Your task to perform on an android device: open chrome and create a bookmark for the current page Image 0: 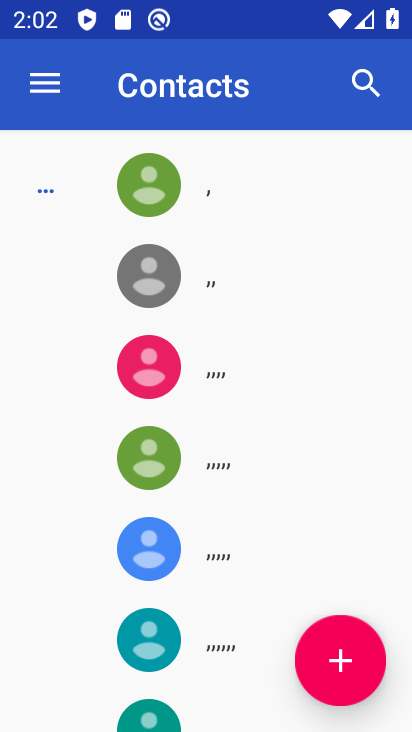
Step 0: press home button
Your task to perform on an android device: open chrome and create a bookmark for the current page Image 1: 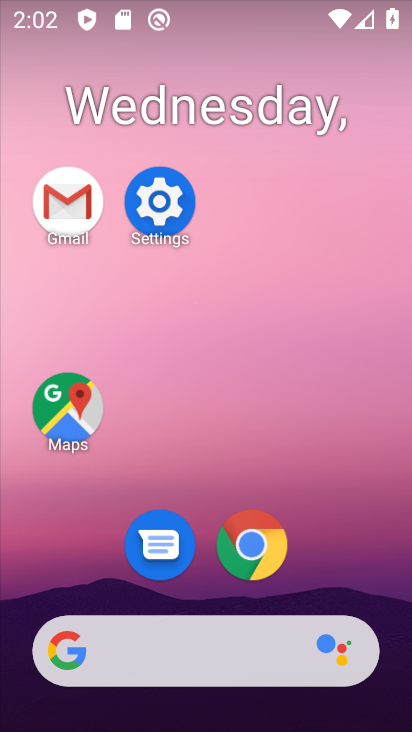
Step 1: click (250, 545)
Your task to perform on an android device: open chrome and create a bookmark for the current page Image 2: 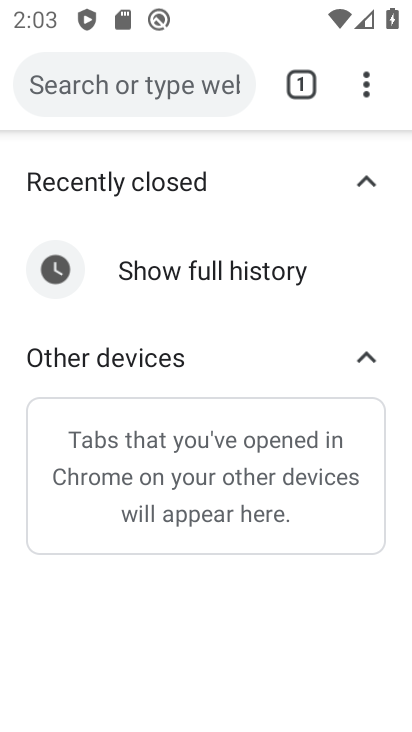
Step 2: click (369, 82)
Your task to perform on an android device: open chrome and create a bookmark for the current page Image 3: 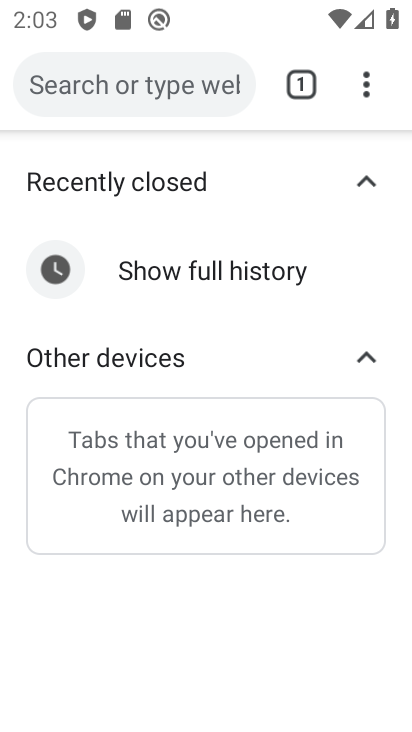
Step 3: click (379, 83)
Your task to perform on an android device: open chrome and create a bookmark for the current page Image 4: 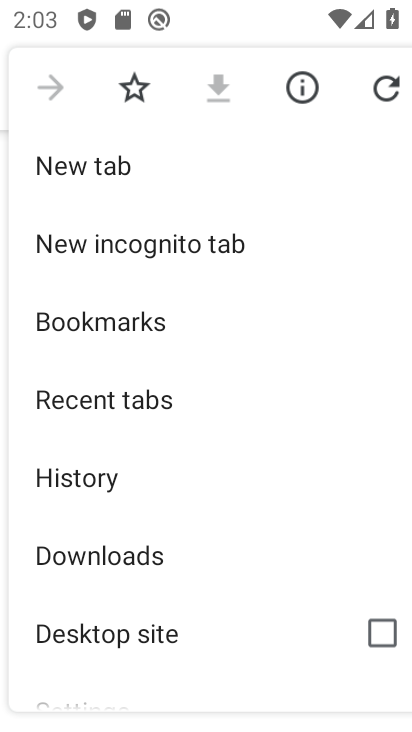
Step 4: click (40, 93)
Your task to perform on an android device: open chrome and create a bookmark for the current page Image 5: 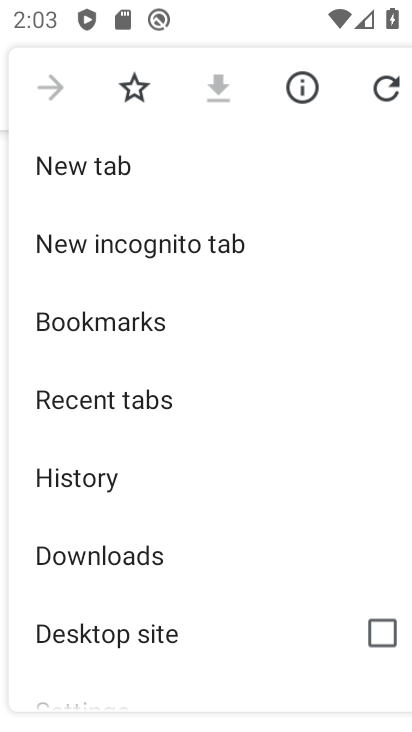
Step 5: click (372, 84)
Your task to perform on an android device: open chrome and create a bookmark for the current page Image 6: 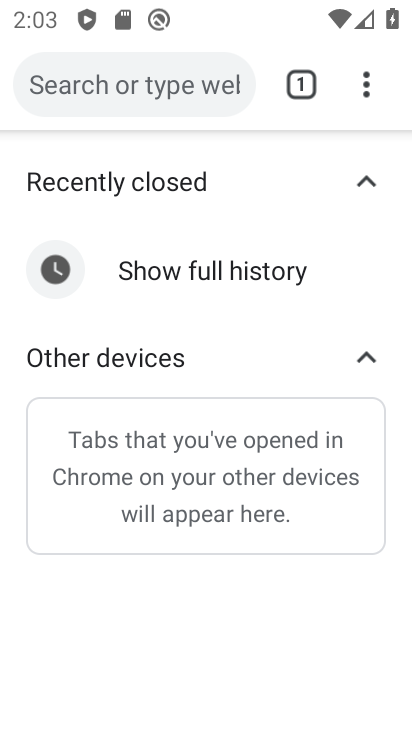
Step 6: click (370, 77)
Your task to perform on an android device: open chrome and create a bookmark for the current page Image 7: 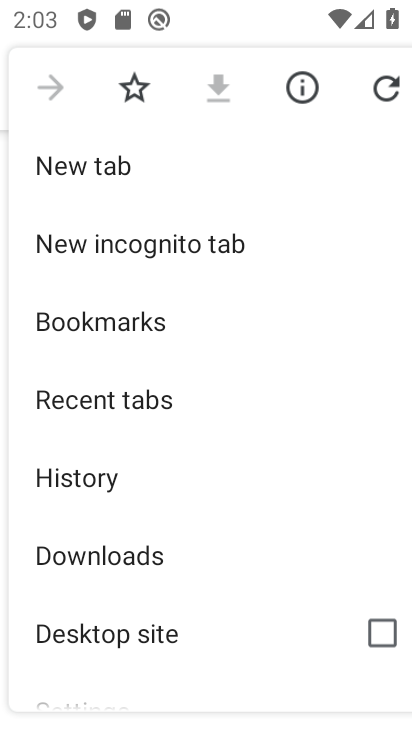
Step 7: click (132, 102)
Your task to perform on an android device: open chrome and create a bookmark for the current page Image 8: 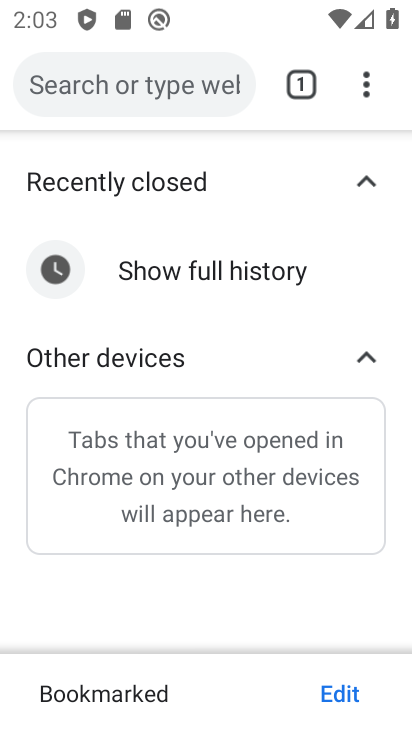
Step 8: task complete